Your task to perform on an android device: Open maps Image 0: 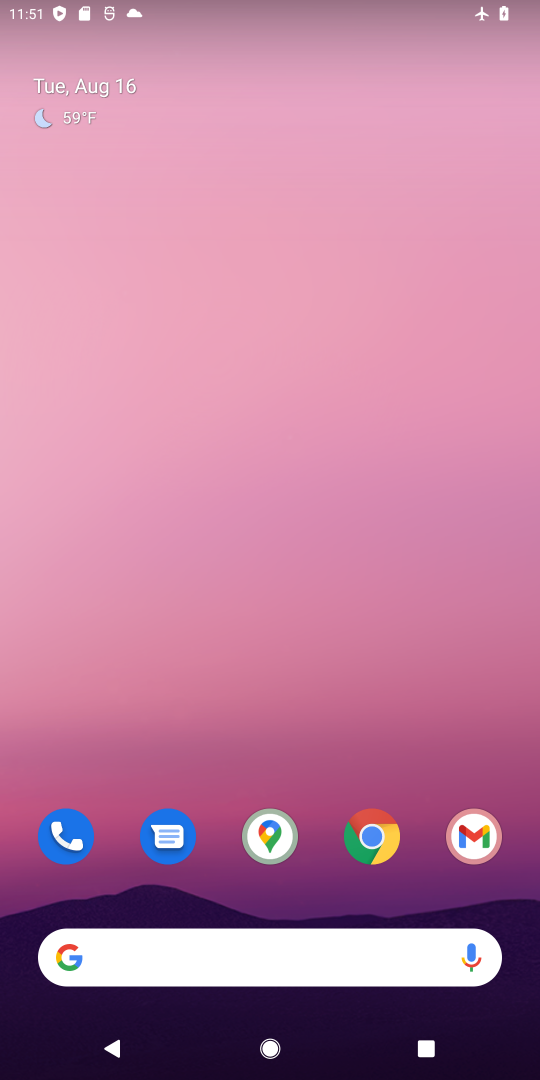
Step 0: click (269, 838)
Your task to perform on an android device: Open maps Image 1: 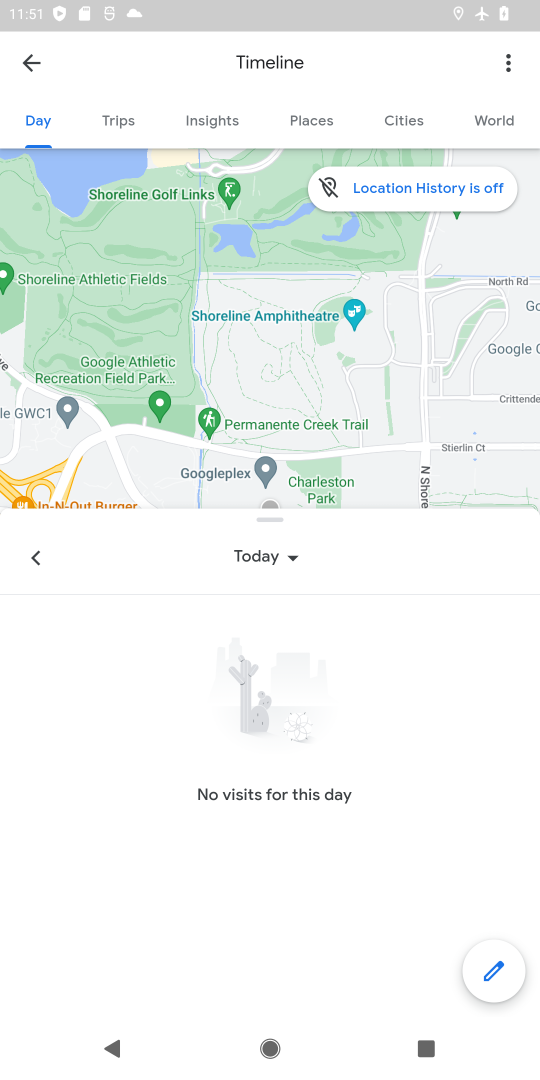
Step 1: task complete